Your task to perform on an android device: toggle notifications settings in the gmail app Image 0: 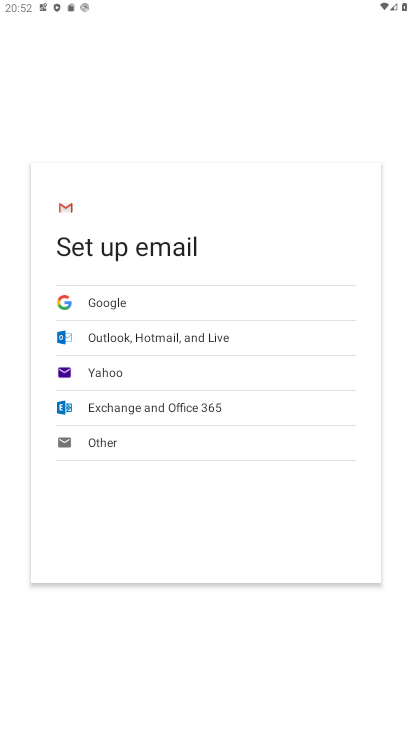
Step 0: press home button
Your task to perform on an android device: toggle notifications settings in the gmail app Image 1: 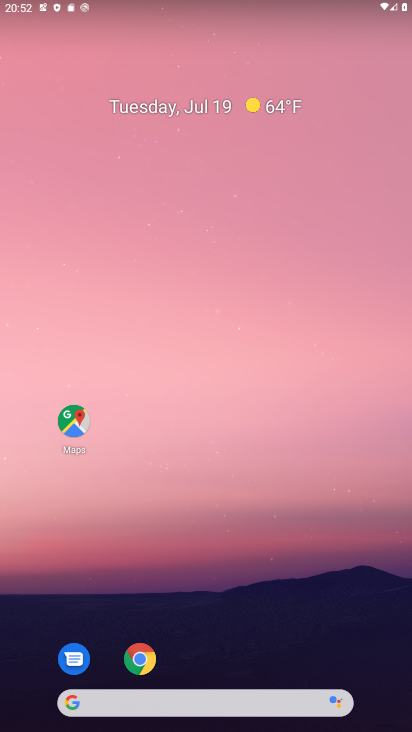
Step 1: drag from (182, 667) to (240, 49)
Your task to perform on an android device: toggle notifications settings in the gmail app Image 2: 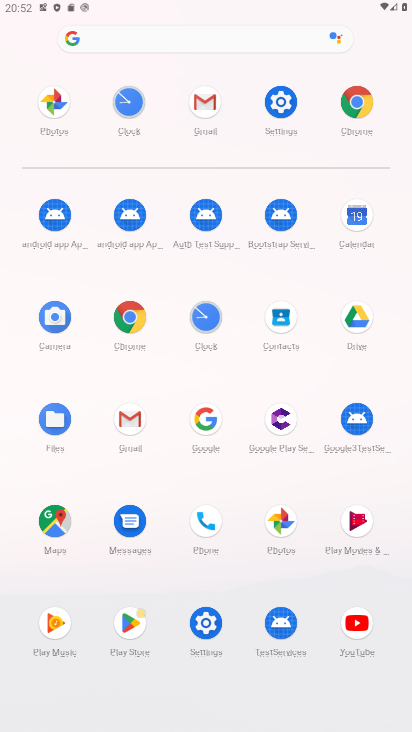
Step 2: click (122, 430)
Your task to perform on an android device: toggle notifications settings in the gmail app Image 3: 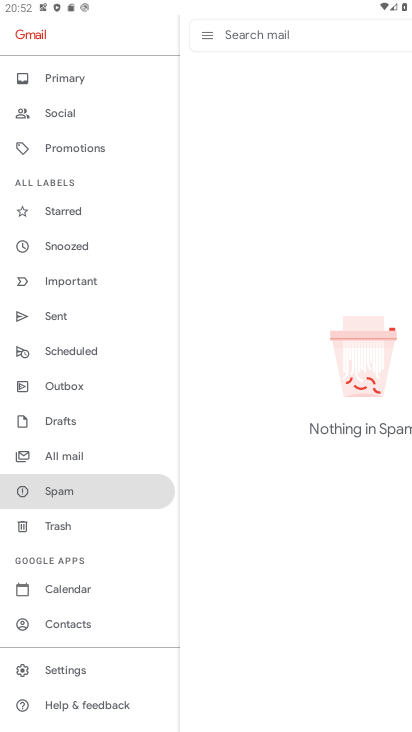
Step 3: click (67, 668)
Your task to perform on an android device: toggle notifications settings in the gmail app Image 4: 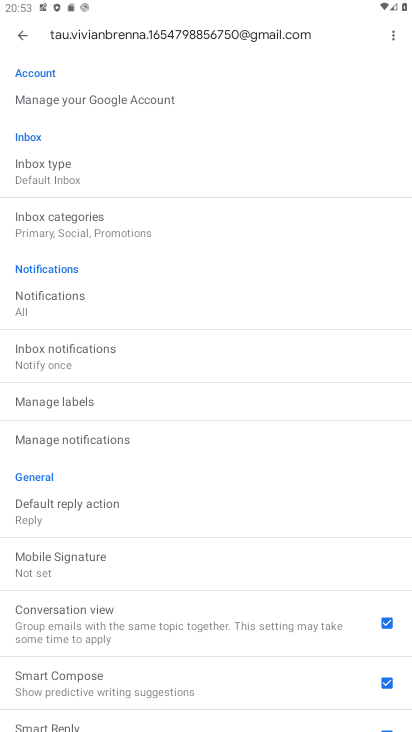
Step 4: click (49, 271)
Your task to perform on an android device: toggle notifications settings in the gmail app Image 5: 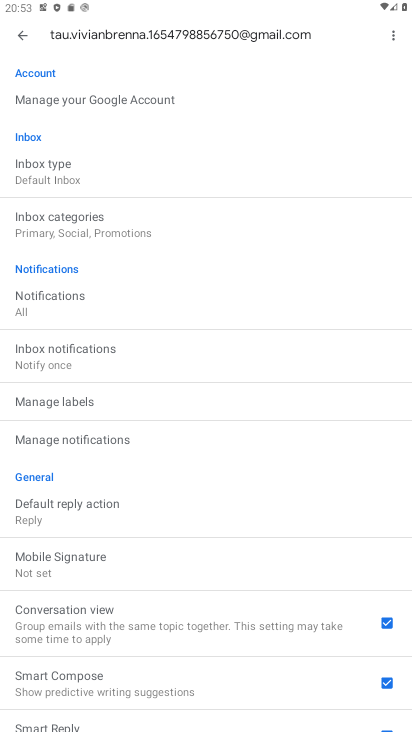
Step 5: click (100, 294)
Your task to perform on an android device: toggle notifications settings in the gmail app Image 6: 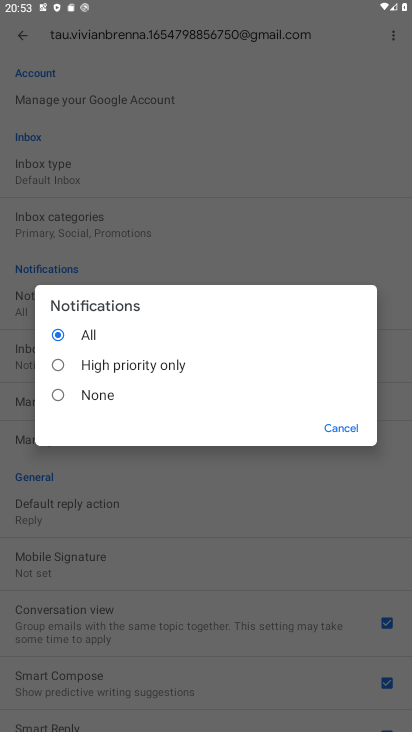
Step 6: click (174, 367)
Your task to perform on an android device: toggle notifications settings in the gmail app Image 7: 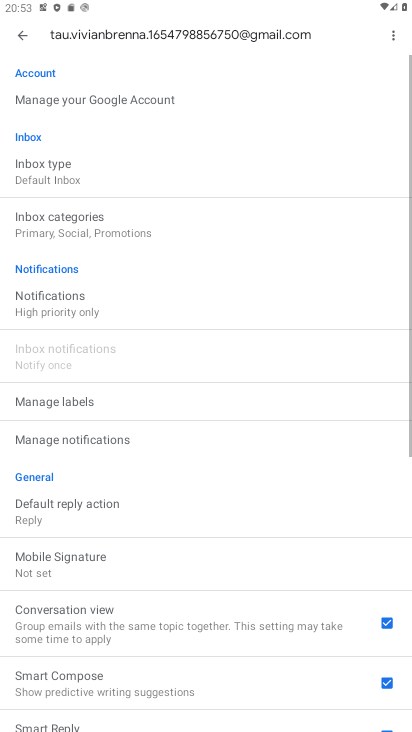
Step 7: task complete